Your task to perform on an android device: Do I have any events today? Image 0: 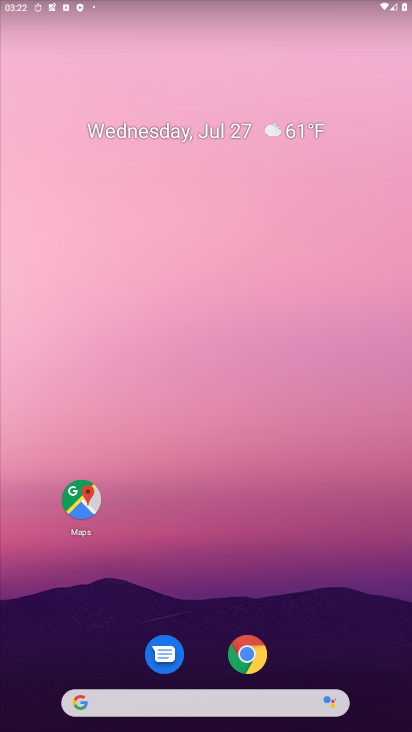
Step 0: drag from (238, 621) to (302, 0)
Your task to perform on an android device: Do I have any events today? Image 1: 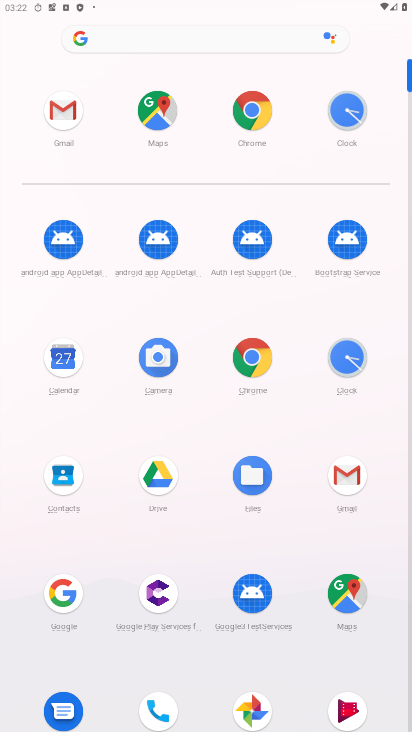
Step 1: click (51, 348)
Your task to perform on an android device: Do I have any events today? Image 2: 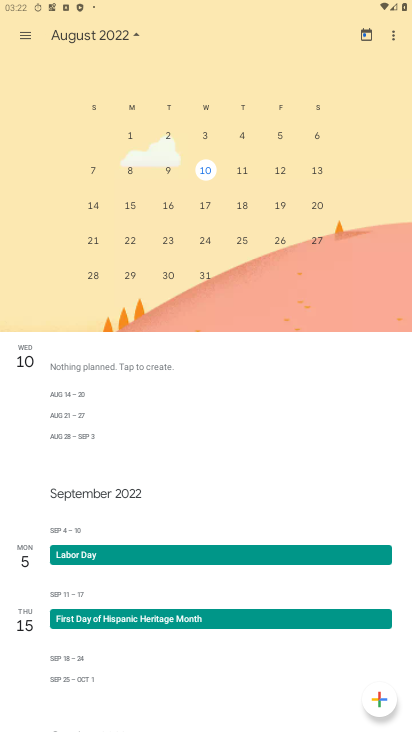
Step 2: task complete